Your task to perform on an android device: Open internet settings Image 0: 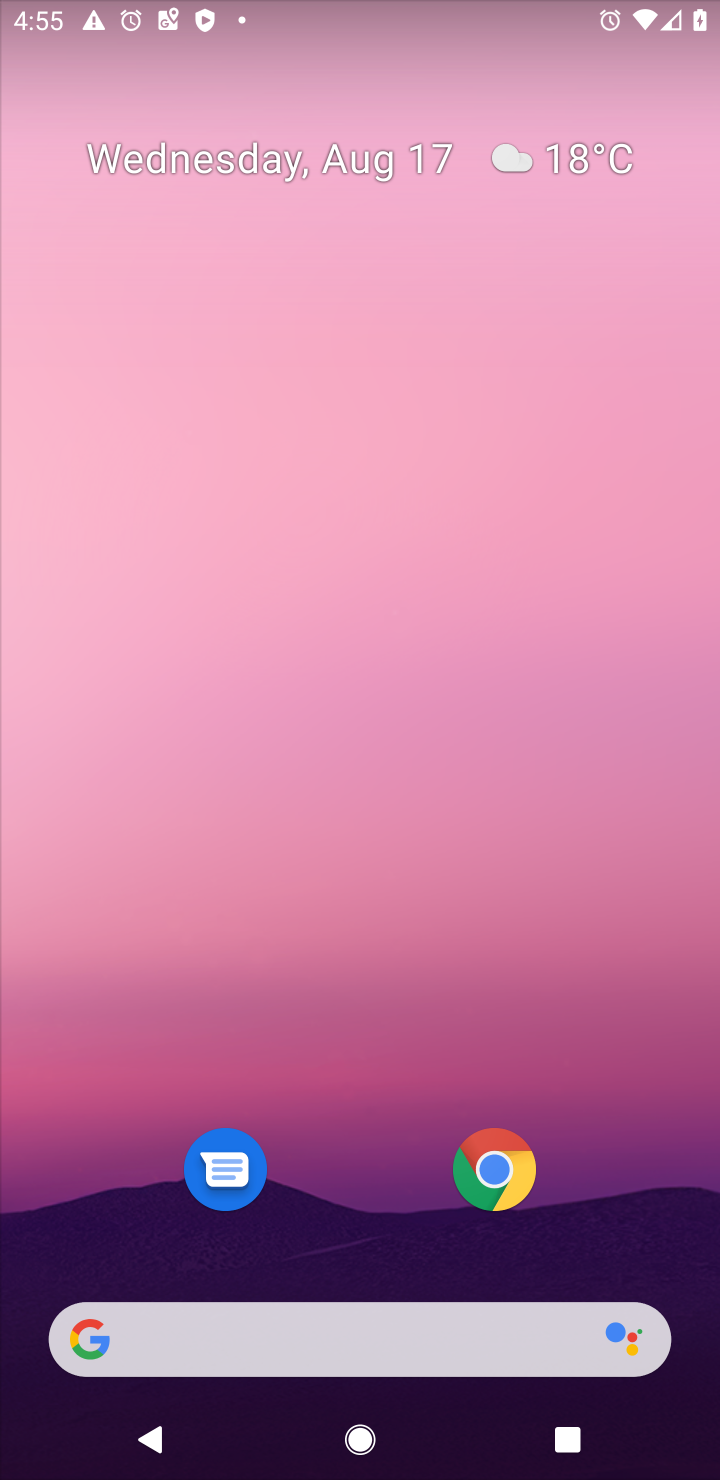
Step 0: press home button
Your task to perform on an android device: Open internet settings Image 1: 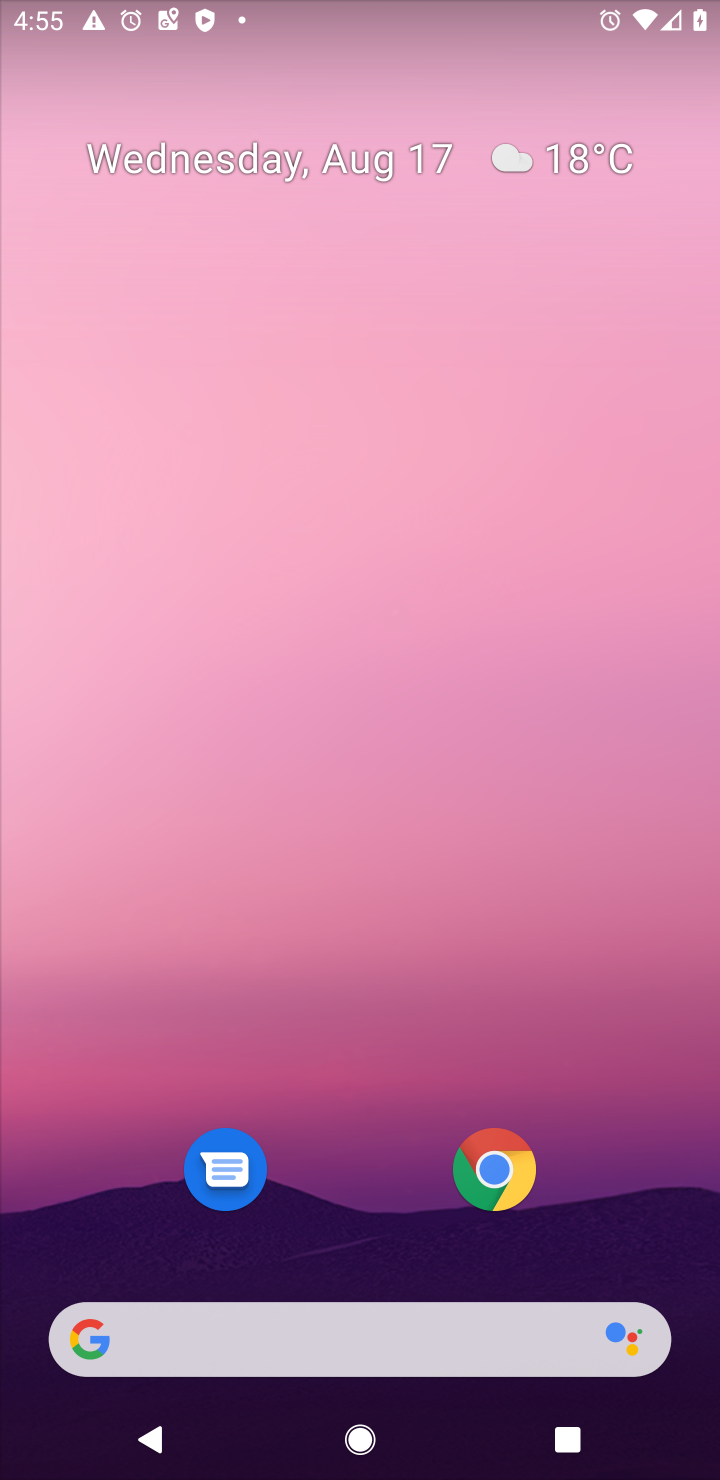
Step 1: drag from (351, 1204) to (453, 94)
Your task to perform on an android device: Open internet settings Image 2: 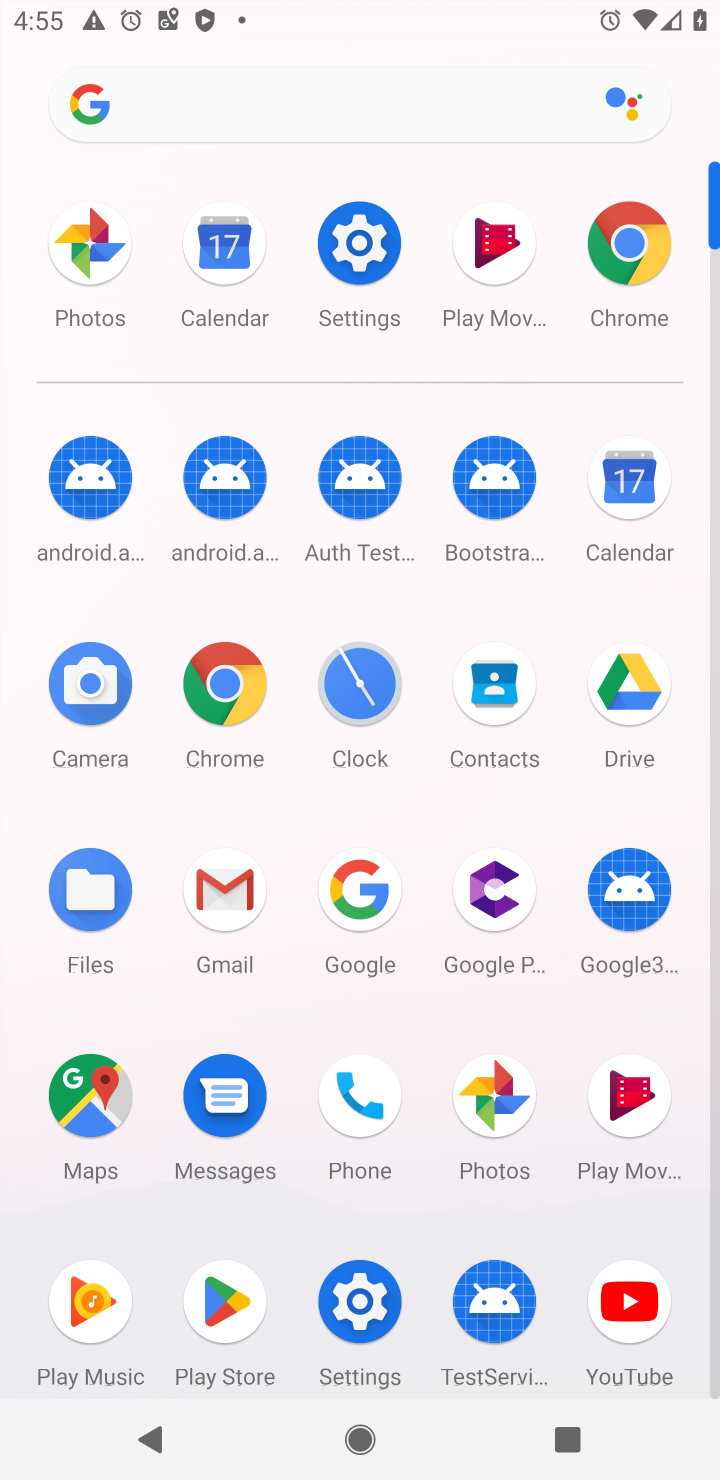
Step 2: click (344, 1296)
Your task to perform on an android device: Open internet settings Image 3: 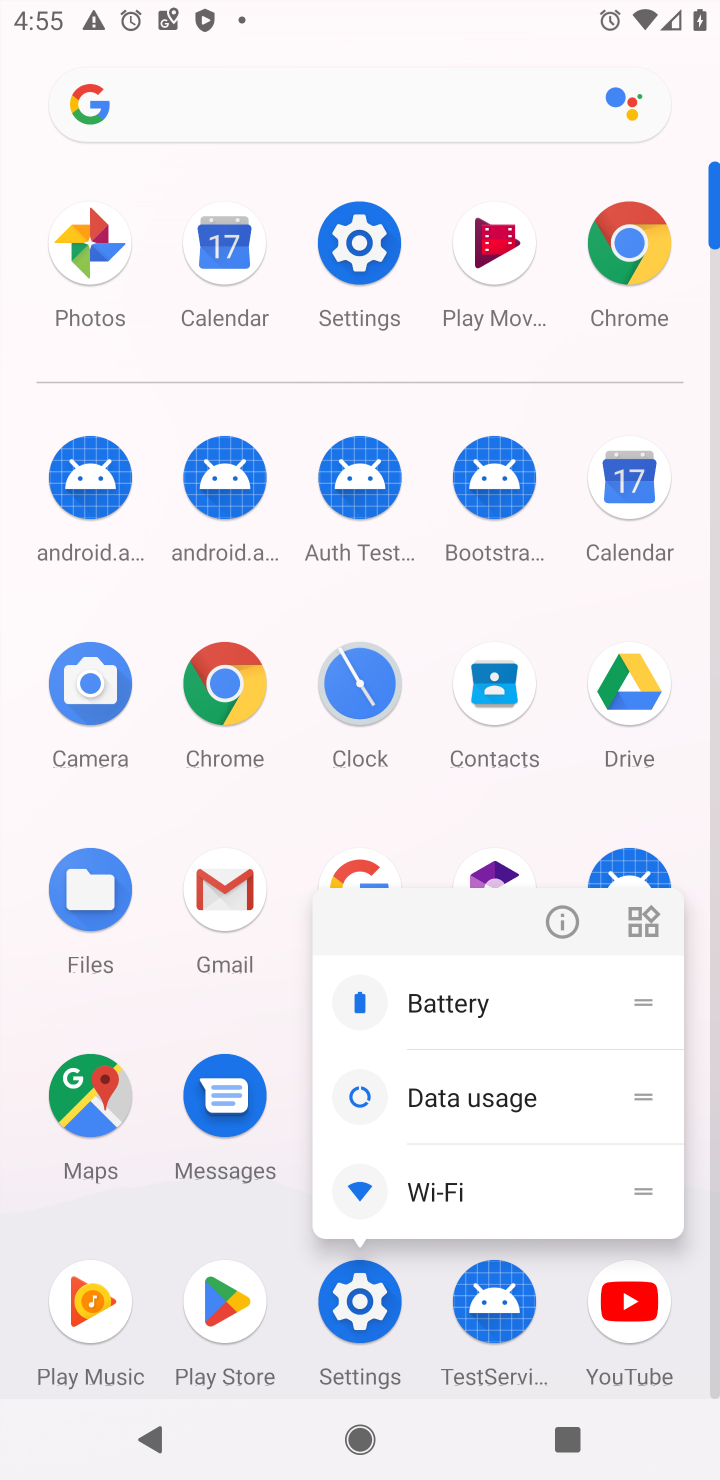
Step 3: click (349, 1295)
Your task to perform on an android device: Open internet settings Image 4: 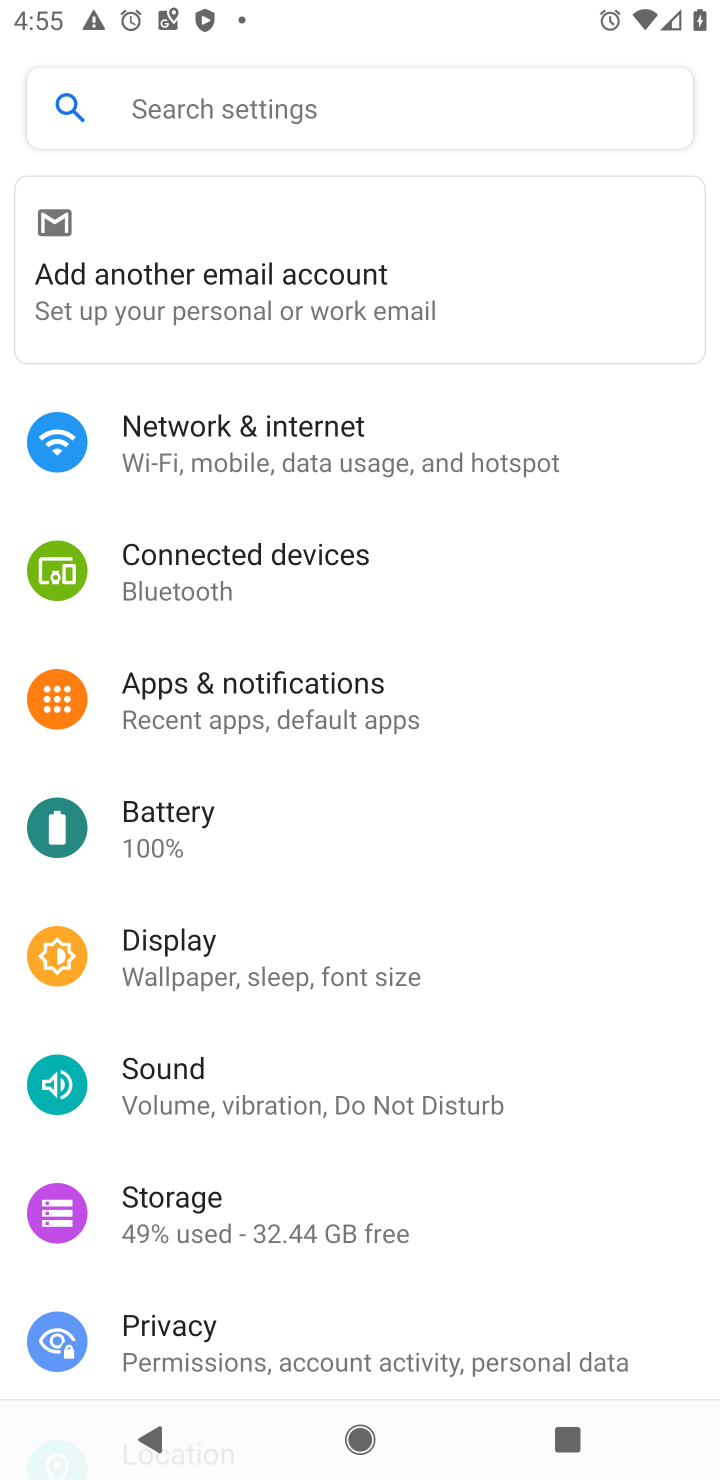
Step 4: click (279, 449)
Your task to perform on an android device: Open internet settings Image 5: 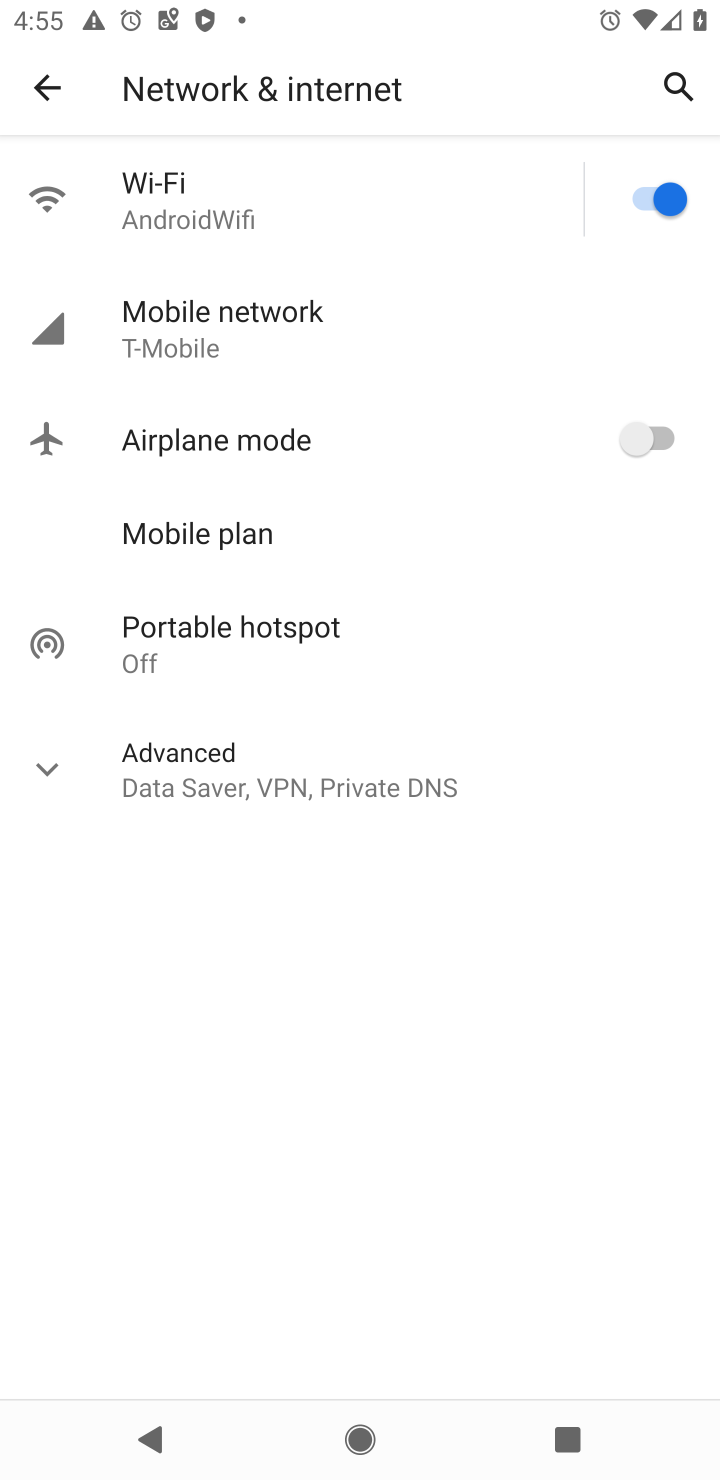
Step 5: task complete